Your task to perform on an android device: move an email to a new category in the gmail app Image 0: 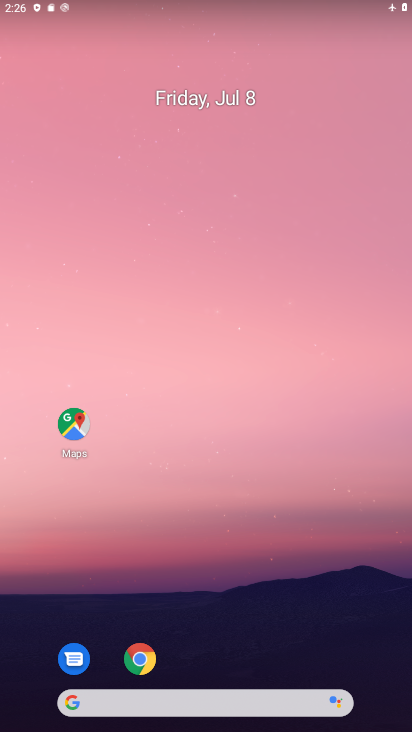
Step 0: drag from (259, 595) to (274, 163)
Your task to perform on an android device: move an email to a new category in the gmail app Image 1: 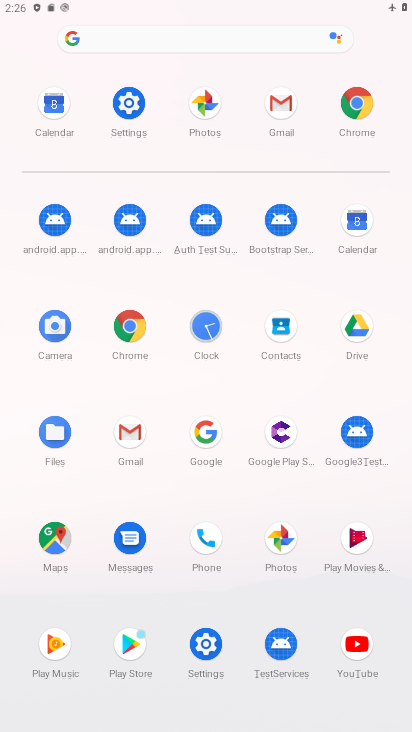
Step 1: click (135, 433)
Your task to perform on an android device: move an email to a new category in the gmail app Image 2: 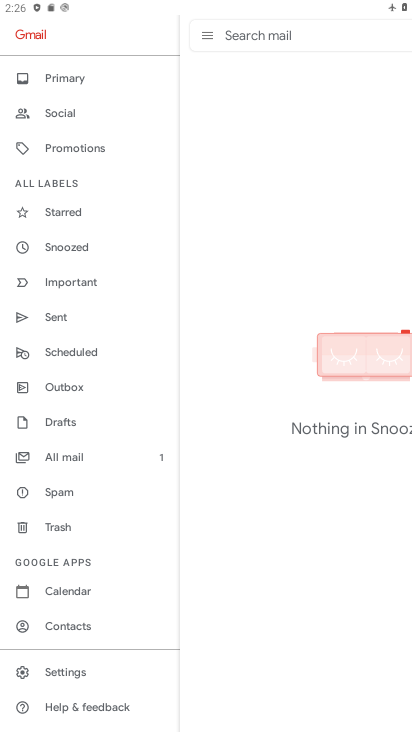
Step 2: drag from (142, 678) to (123, 403)
Your task to perform on an android device: move an email to a new category in the gmail app Image 3: 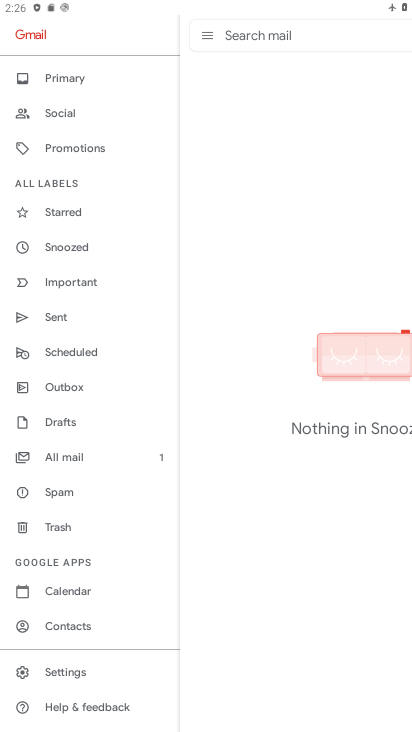
Step 3: click (96, 453)
Your task to perform on an android device: move an email to a new category in the gmail app Image 4: 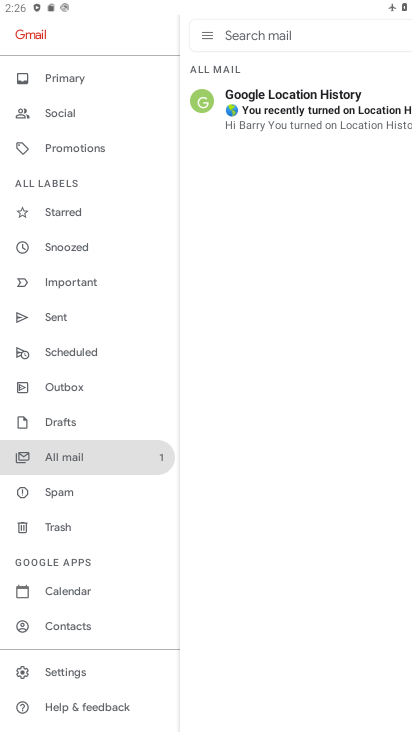
Step 4: click (301, 114)
Your task to perform on an android device: move an email to a new category in the gmail app Image 5: 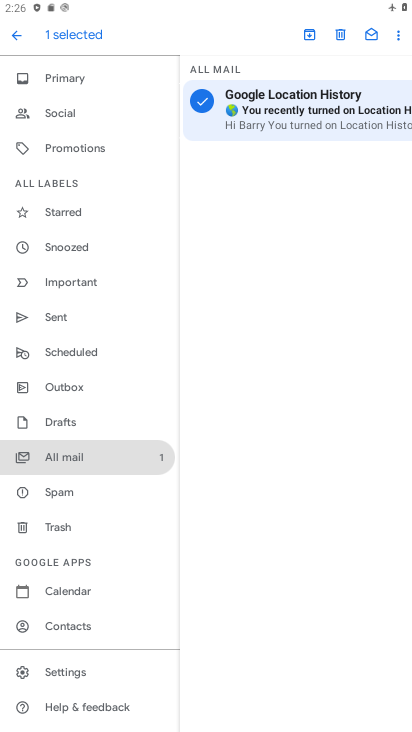
Step 5: click (400, 35)
Your task to perform on an android device: move an email to a new category in the gmail app Image 6: 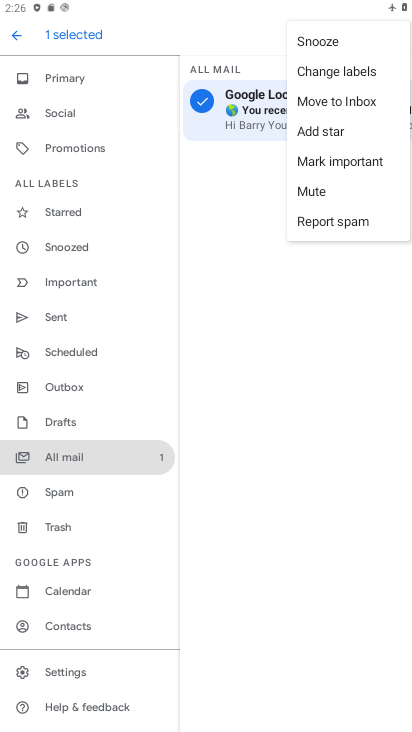
Step 6: click (359, 101)
Your task to perform on an android device: move an email to a new category in the gmail app Image 7: 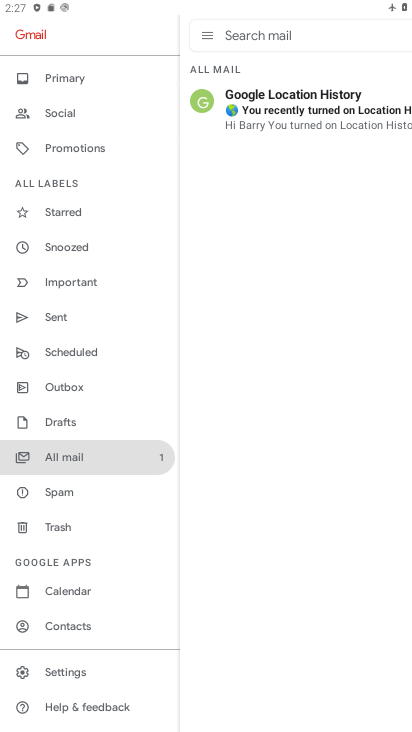
Step 7: task complete